Your task to perform on an android device: set default search engine in the chrome app Image 0: 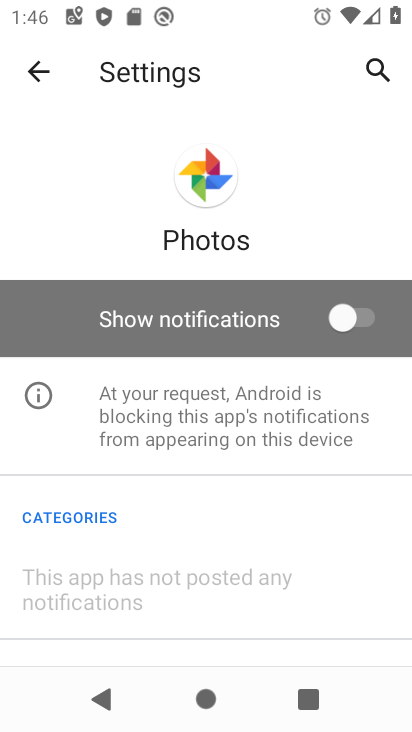
Step 0: press home button
Your task to perform on an android device: set default search engine in the chrome app Image 1: 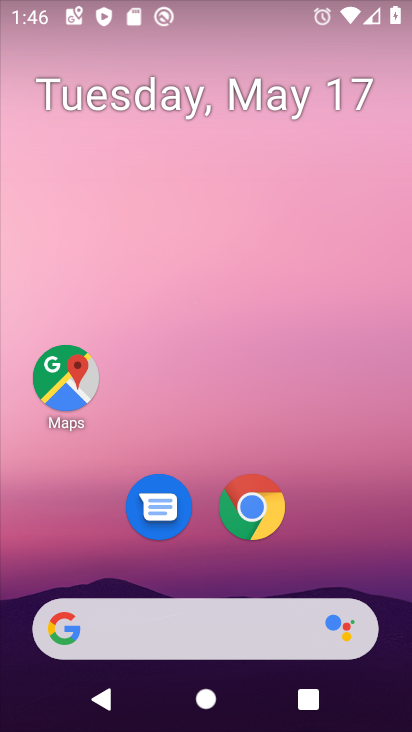
Step 1: drag from (307, 576) to (349, 257)
Your task to perform on an android device: set default search engine in the chrome app Image 2: 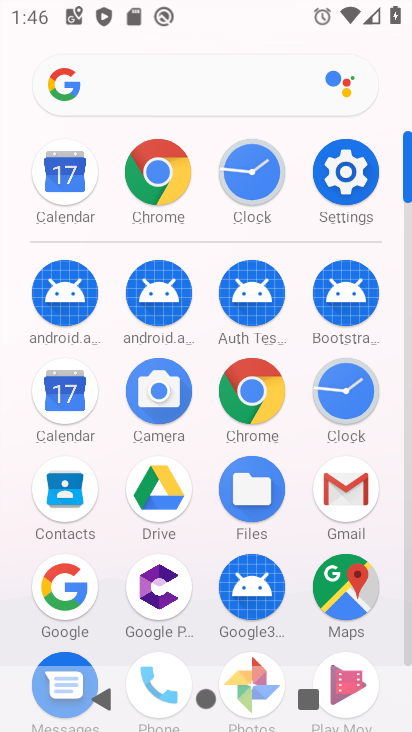
Step 2: click (144, 152)
Your task to perform on an android device: set default search engine in the chrome app Image 3: 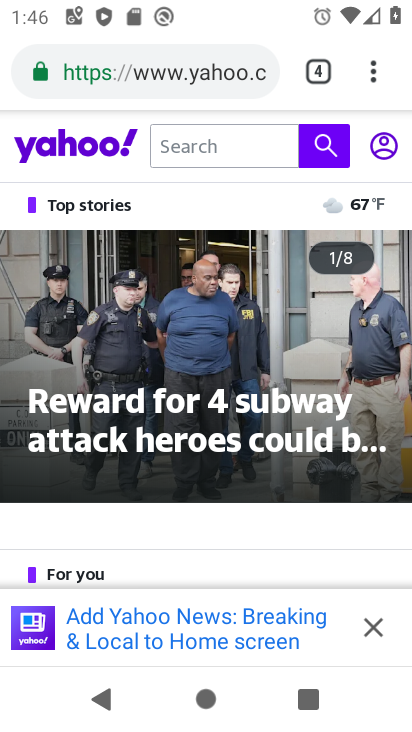
Step 3: click (377, 77)
Your task to perform on an android device: set default search engine in the chrome app Image 4: 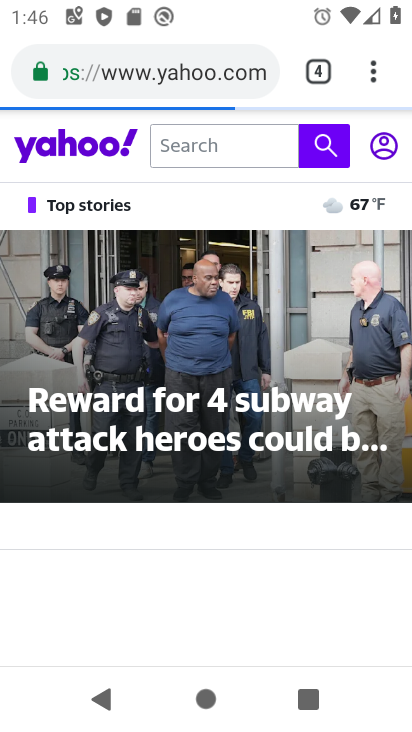
Step 4: click (359, 60)
Your task to perform on an android device: set default search engine in the chrome app Image 5: 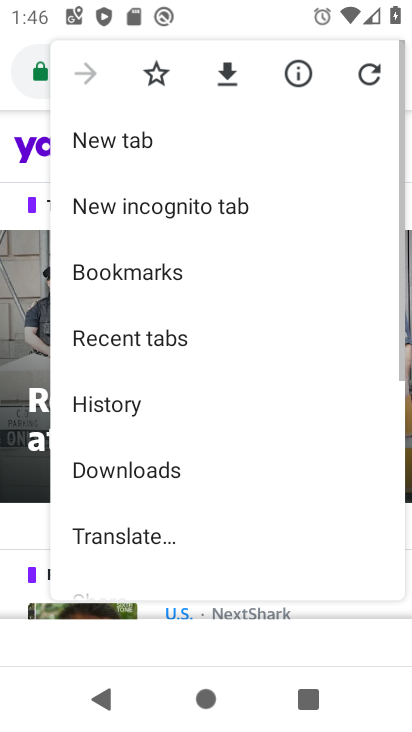
Step 5: drag from (235, 513) to (296, 176)
Your task to perform on an android device: set default search engine in the chrome app Image 6: 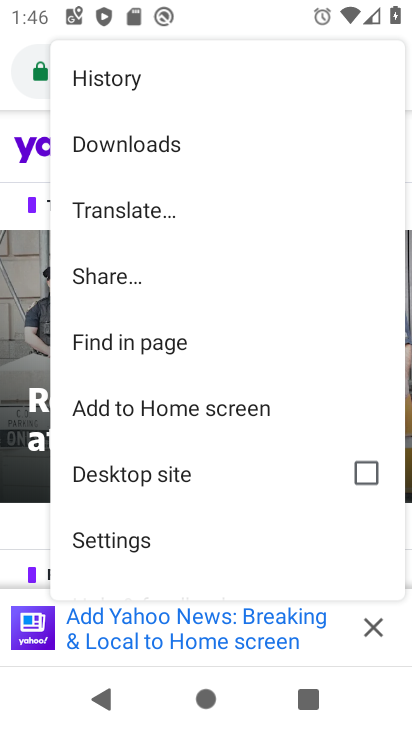
Step 6: click (164, 530)
Your task to perform on an android device: set default search engine in the chrome app Image 7: 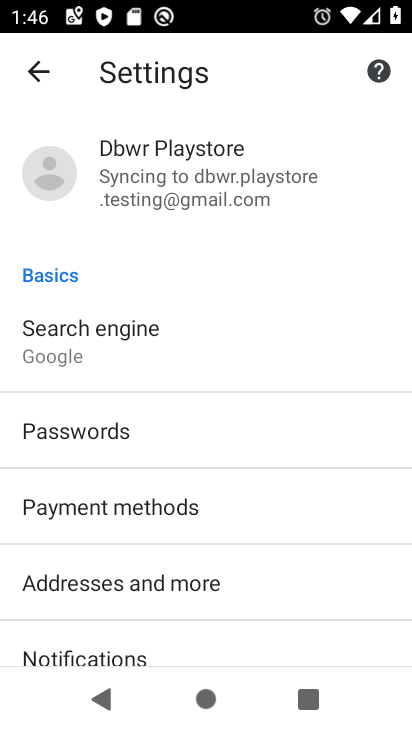
Step 7: click (127, 341)
Your task to perform on an android device: set default search engine in the chrome app Image 8: 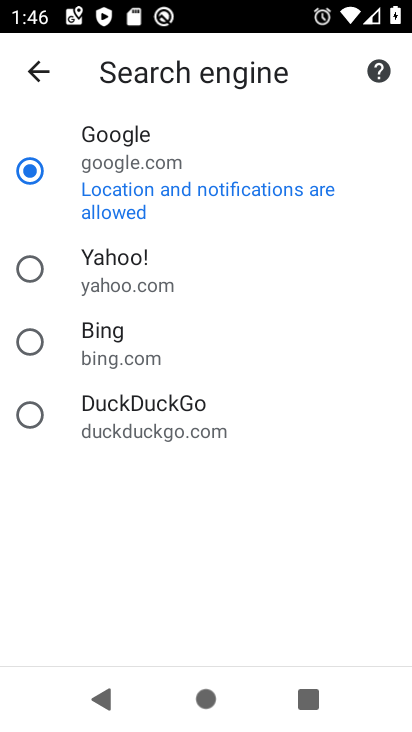
Step 8: click (78, 339)
Your task to perform on an android device: set default search engine in the chrome app Image 9: 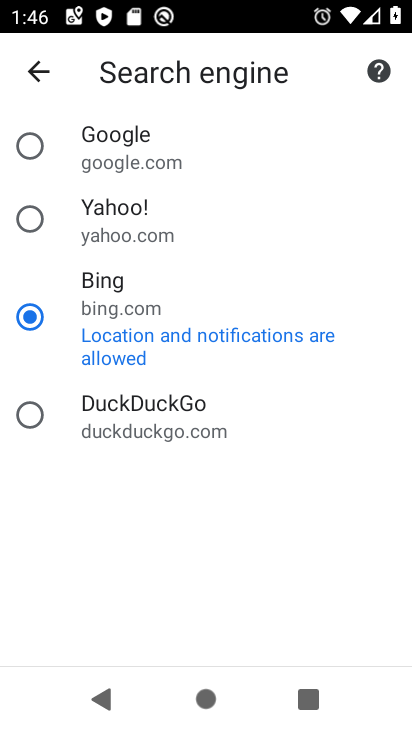
Step 9: task complete